Your task to perform on an android device: Open Maps and search for coffee Image 0: 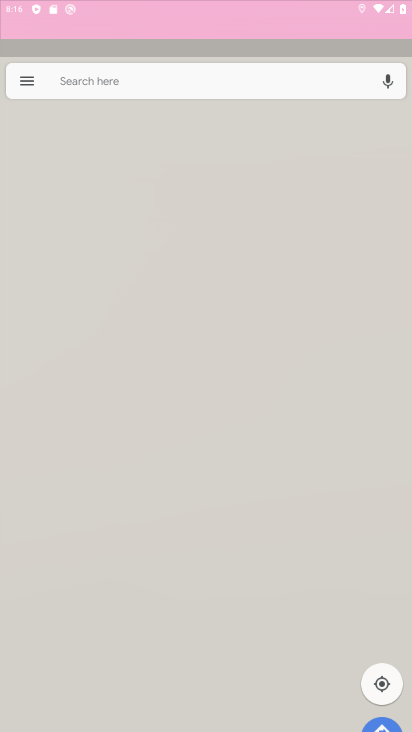
Step 0: click (124, 639)
Your task to perform on an android device: Open Maps and search for coffee Image 1: 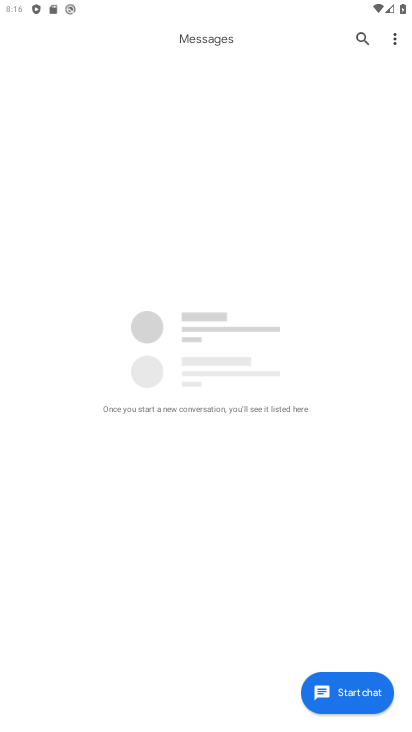
Step 1: press home button
Your task to perform on an android device: Open Maps and search for coffee Image 2: 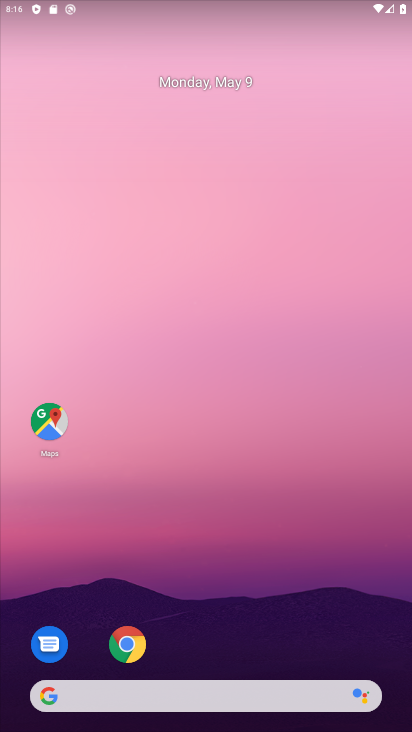
Step 2: click (52, 426)
Your task to perform on an android device: Open Maps and search for coffee Image 3: 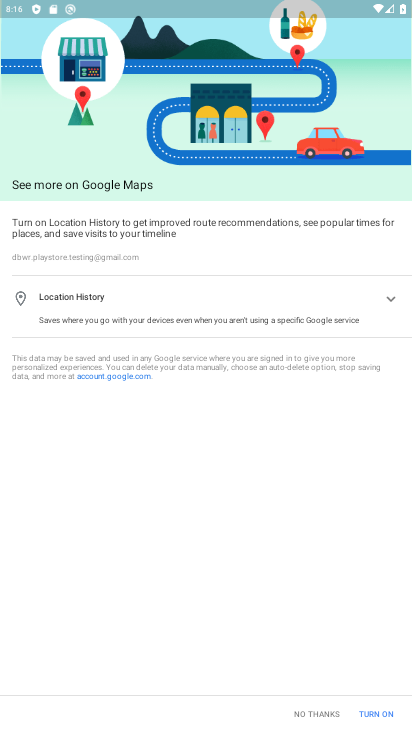
Step 3: click (365, 712)
Your task to perform on an android device: Open Maps and search for coffee Image 4: 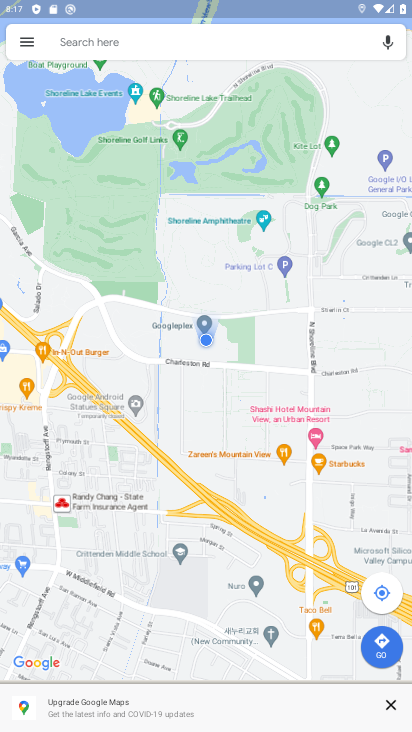
Step 4: click (100, 32)
Your task to perform on an android device: Open Maps and search for coffee Image 5: 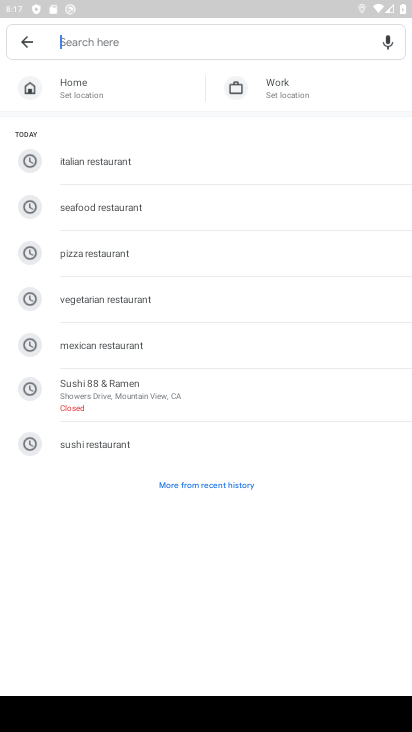
Step 5: type "coffee"
Your task to perform on an android device: Open Maps and search for coffee Image 6: 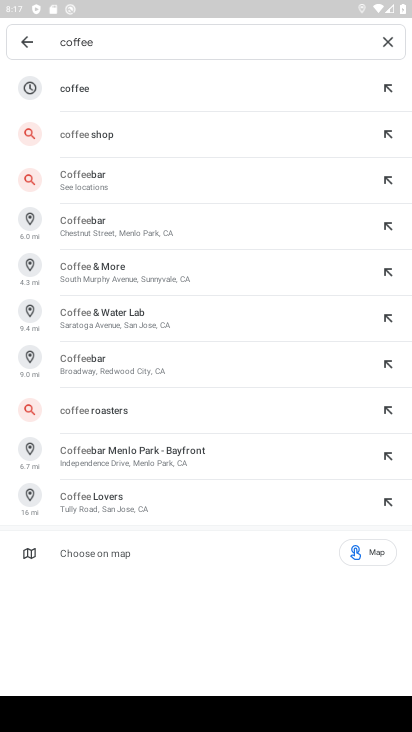
Step 6: click (97, 85)
Your task to perform on an android device: Open Maps and search for coffee Image 7: 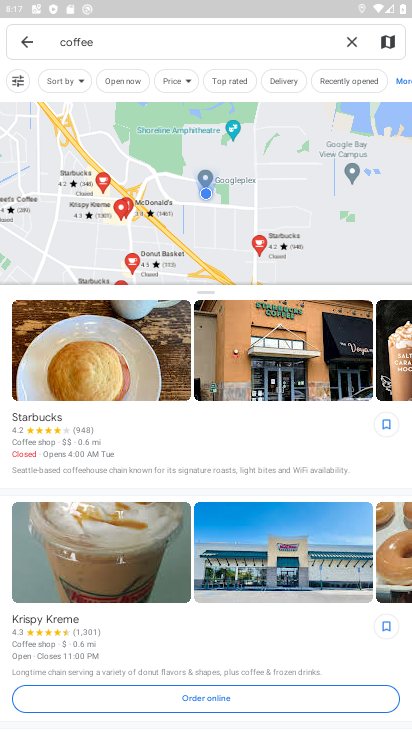
Step 7: task complete